Your task to perform on an android device: choose inbox layout in the gmail app Image 0: 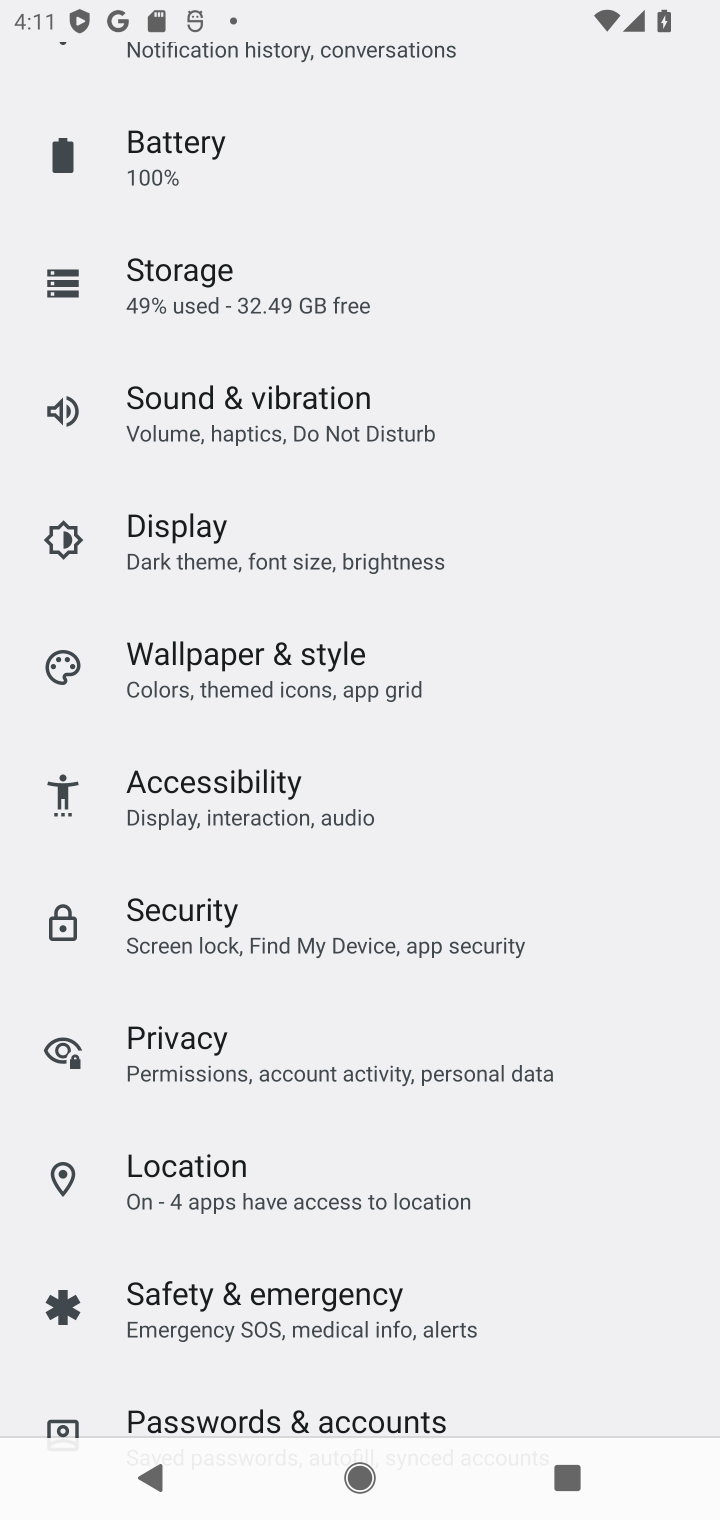
Step 0: press home button
Your task to perform on an android device: choose inbox layout in the gmail app Image 1: 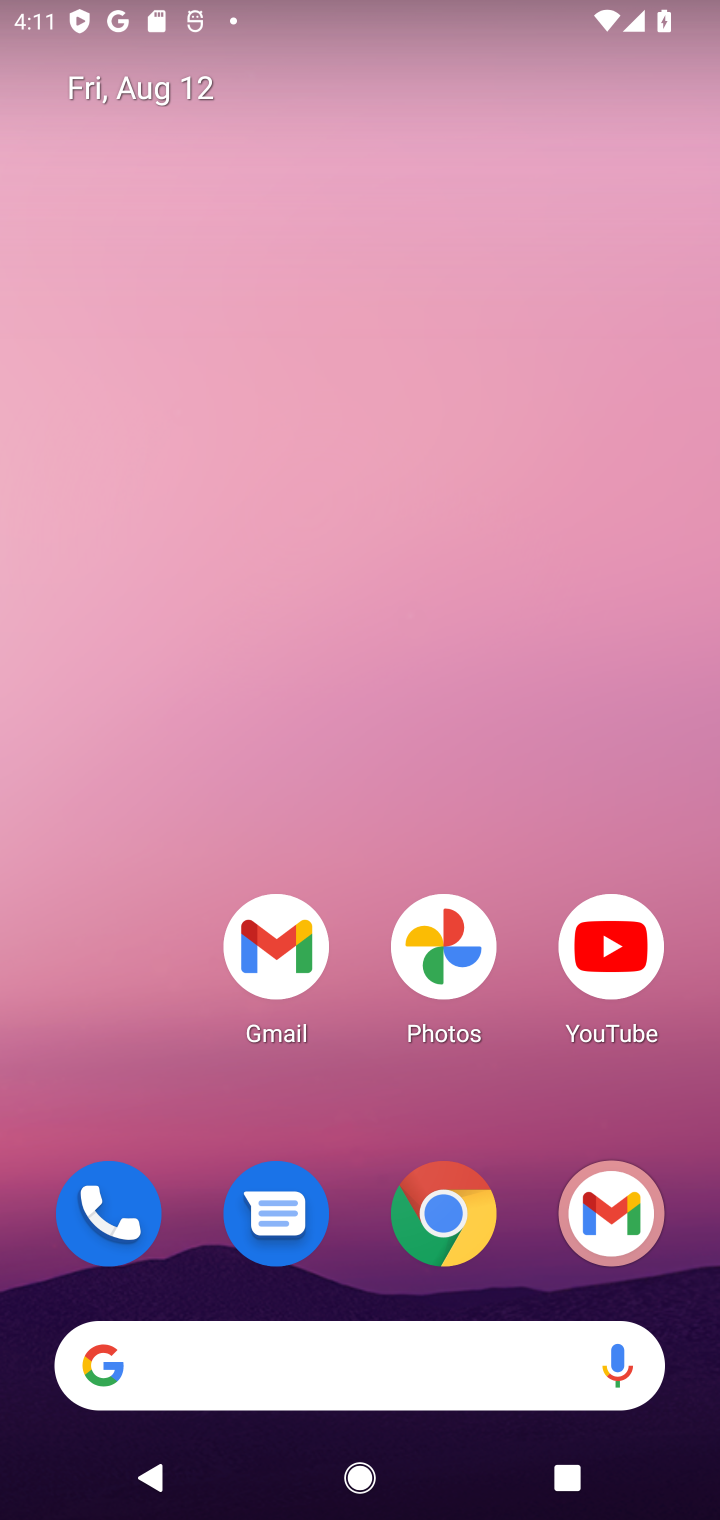
Step 1: drag from (377, 912) to (464, 32)
Your task to perform on an android device: choose inbox layout in the gmail app Image 2: 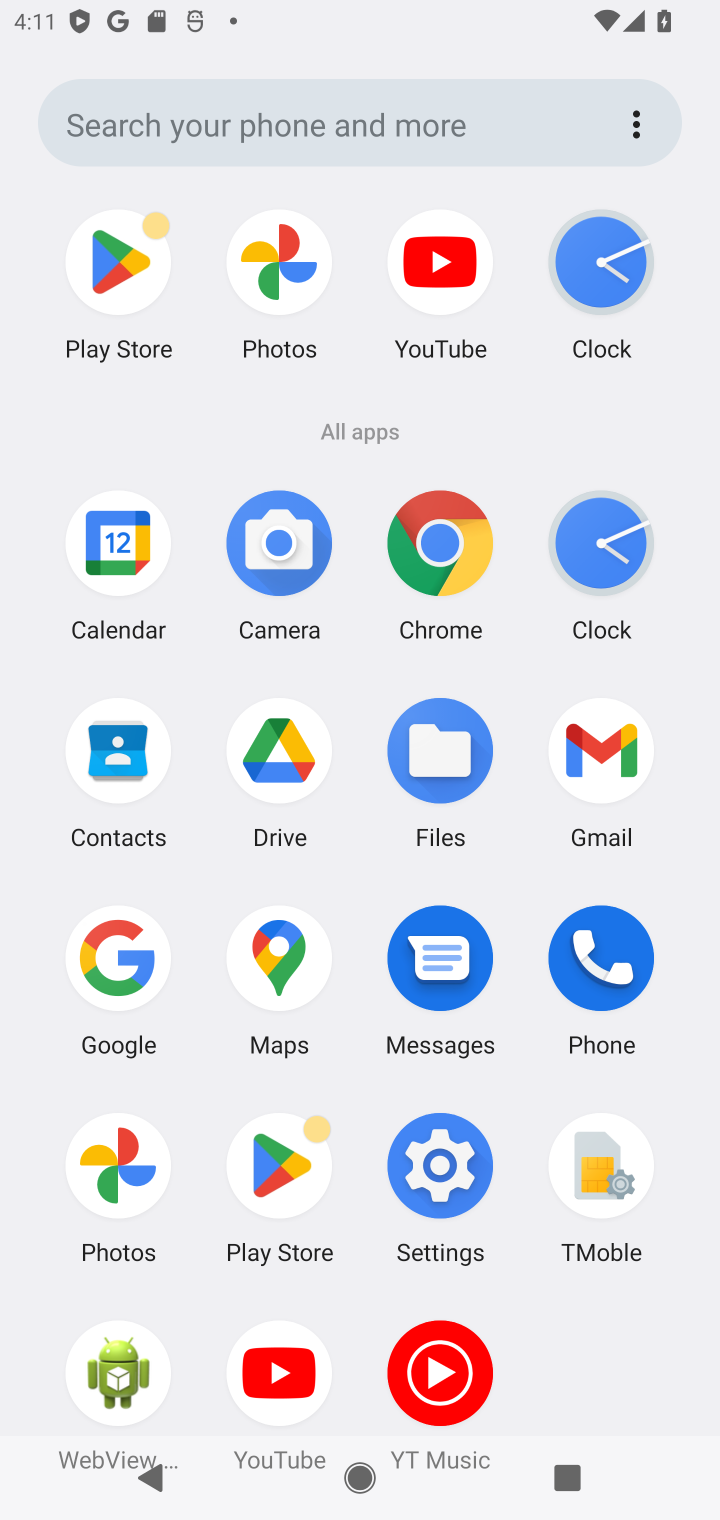
Step 2: click (610, 746)
Your task to perform on an android device: choose inbox layout in the gmail app Image 3: 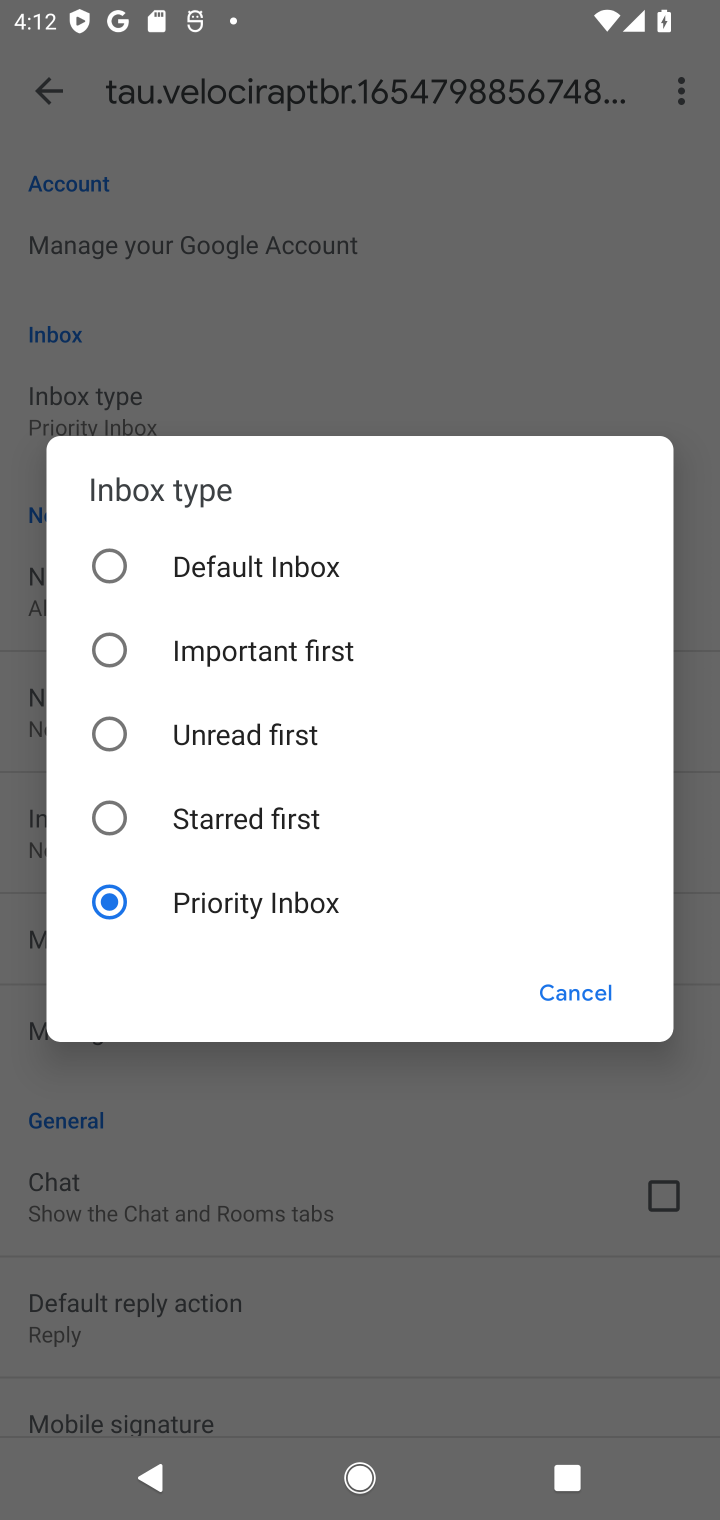
Step 3: task complete